Your task to perform on an android device: show emergency info Image 0: 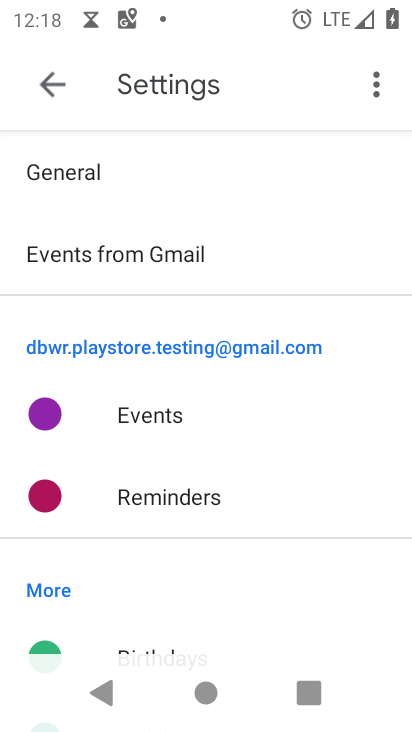
Step 0: press home button
Your task to perform on an android device: show emergency info Image 1: 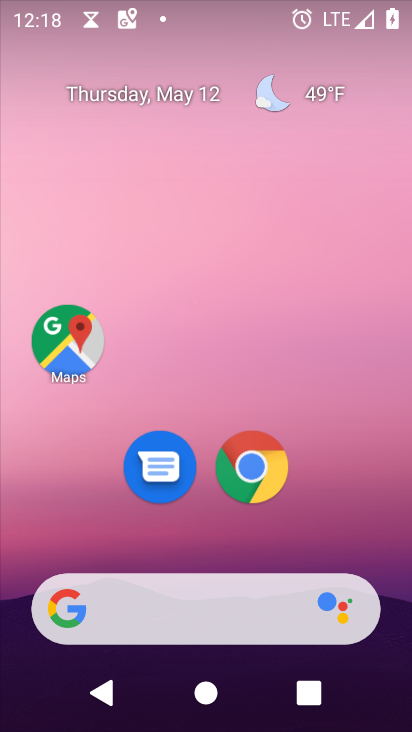
Step 1: drag from (182, 625) to (360, 95)
Your task to perform on an android device: show emergency info Image 2: 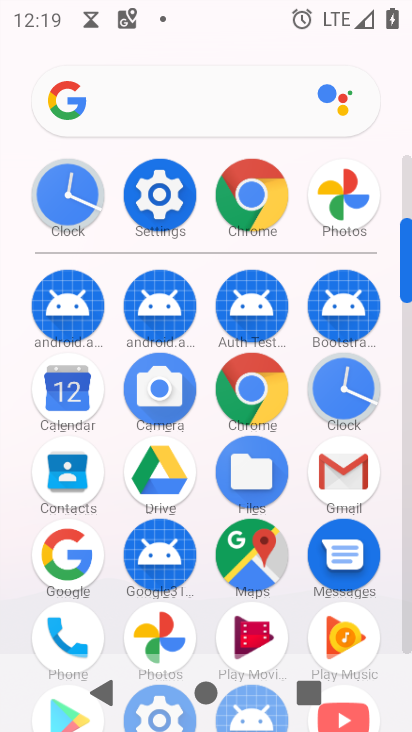
Step 2: click (164, 207)
Your task to perform on an android device: show emergency info Image 3: 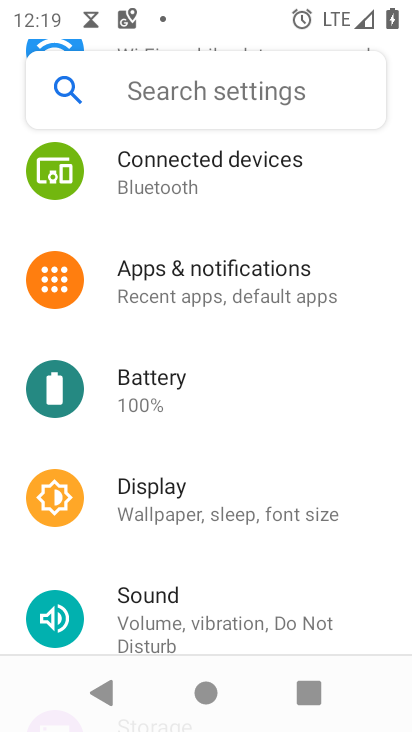
Step 3: drag from (283, 391) to (336, 193)
Your task to perform on an android device: show emergency info Image 4: 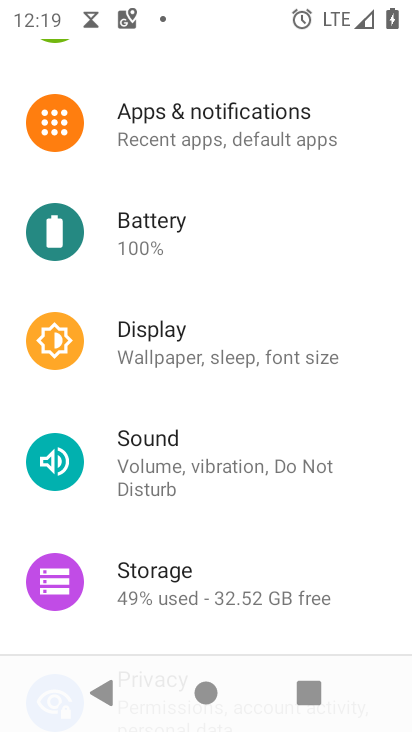
Step 4: drag from (218, 630) to (410, 107)
Your task to perform on an android device: show emergency info Image 5: 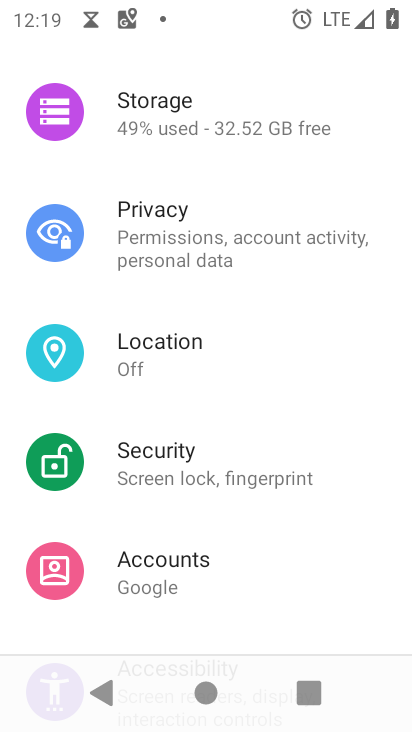
Step 5: drag from (257, 582) to (372, 94)
Your task to perform on an android device: show emergency info Image 6: 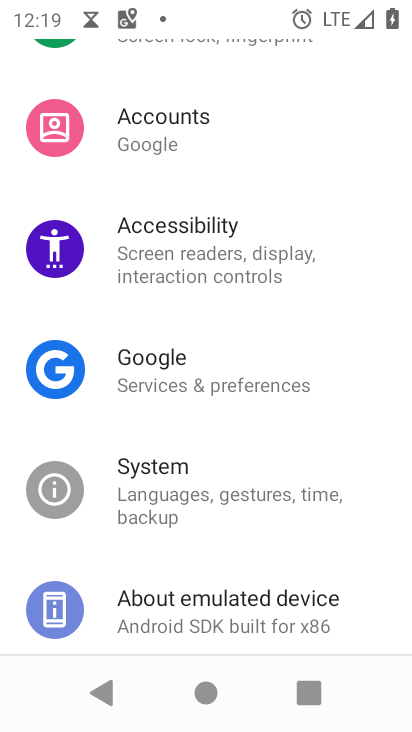
Step 6: click (233, 625)
Your task to perform on an android device: show emergency info Image 7: 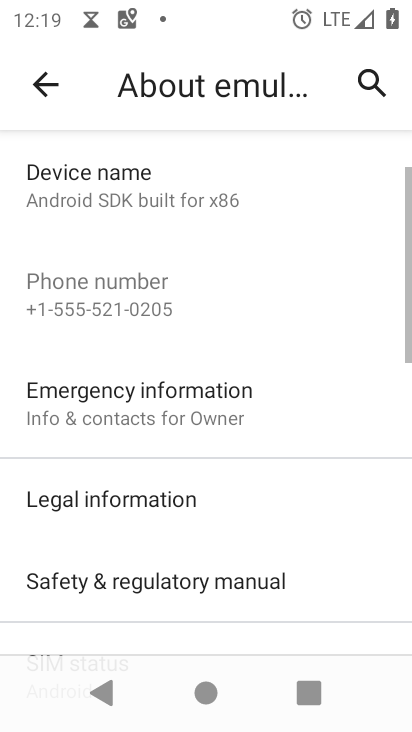
Step 7: click (195, 397)
Your task to perform on an android device: show emergency info Image 8: 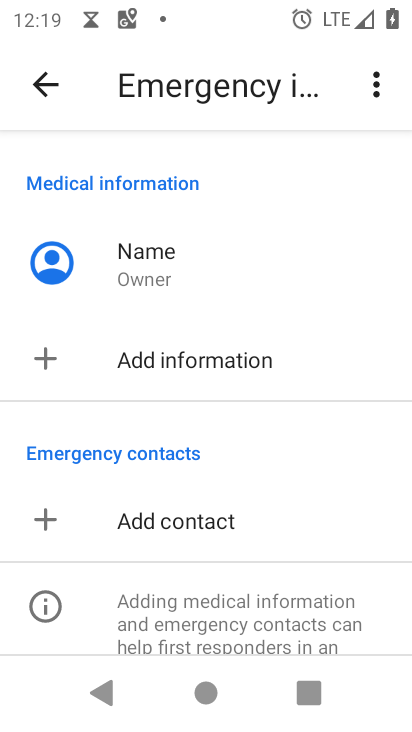
Step 8: task complete